Your task to perform on an android device: Add "macbook air" to the cart on target Image 0: 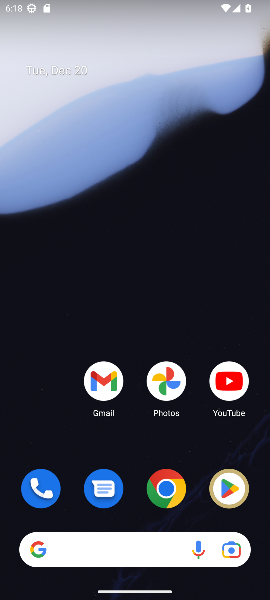
Step 0: press home button
Your task to perform on an android device: Add "macbook air" to the cart on target Image 1: 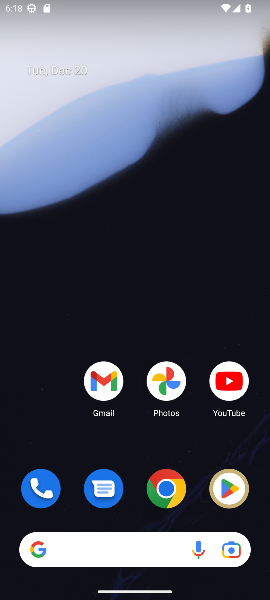
Step 1: drag from (50, 426) to (53, 24)
Your task to perform on an android device: Add "macbook air" to the cart on target Image 2: 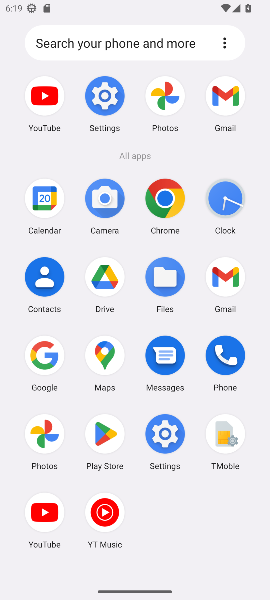
Step 2: click (39, 356)
Your task to perform on an android device: Add "macbook air" to the cart on target Image 3: 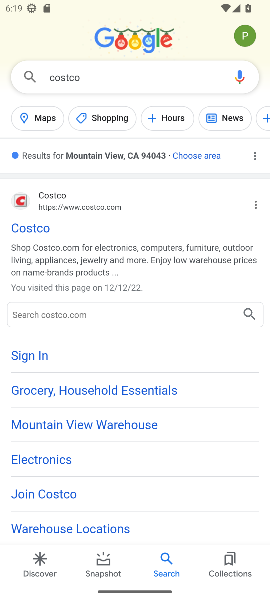
Step 3: click (23, 223)
Your task to perform on an android device: Add "macbook air" to the cart on target Image 4: 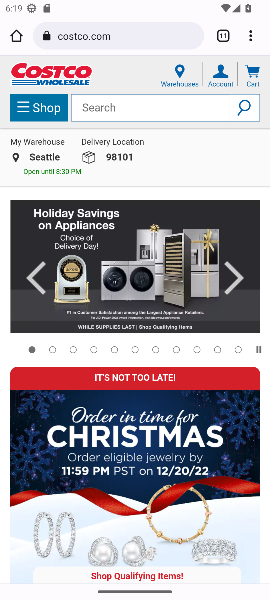
Step 4: click (96, 112)
Your task to perform on an android device: Add "macbook air" to the cart on target Image 5: 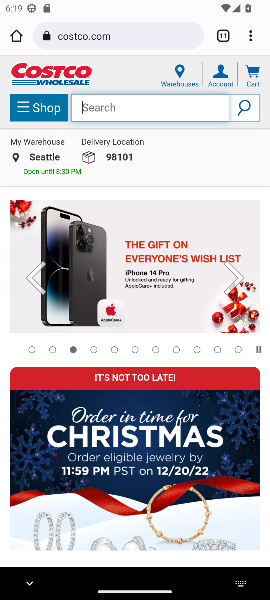
Step 5: type "macbook air"
Your task to perform on an android device: Add "macbook air" to the cart on target Image 6: 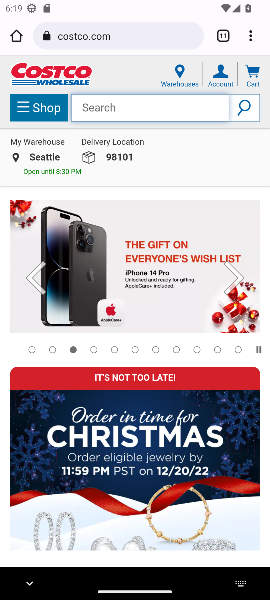
Step 6: press enter
Your task to perform on an android device: Add "macbook air" to the cart on target Image 7: 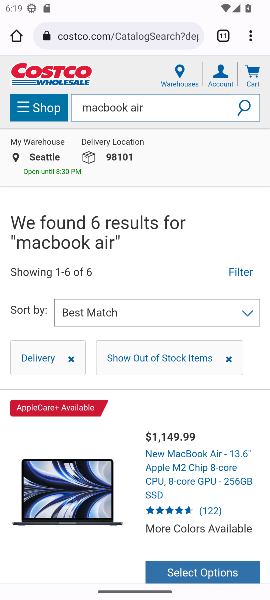
Step 7: drag from (183, 506) to (185, 236)
Your task to perform on an android device: Add "macbook air" to the cart on target Image 8: 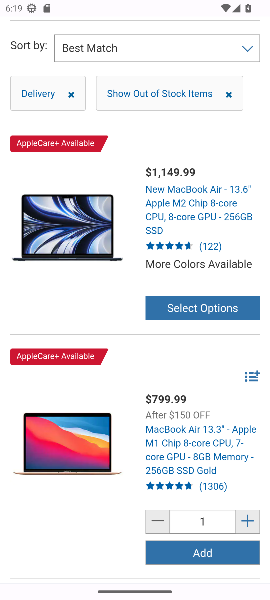
Step 8: click (176, 204)
Your task to perform on an android device: Add "macbook air" to the cart on target Image 9: 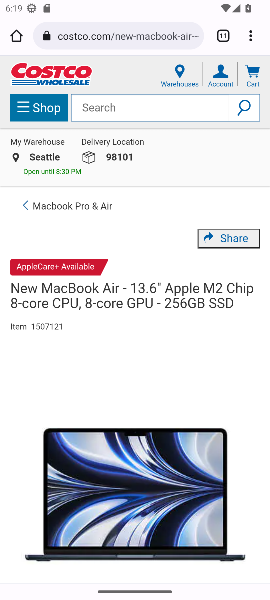
Step 9: drag from (140, 509) to (136, 216)
Your task to perform on an android device: Add "macbook air" to the cart on target Image 10: 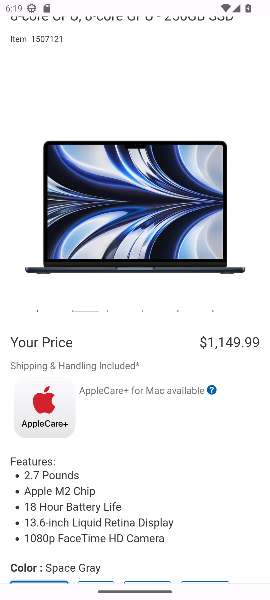
Step 10: drag from (125, 491) to (144, 158)
Your task to perform on an android device: Add "macbook air" to the cart on target Image 11: 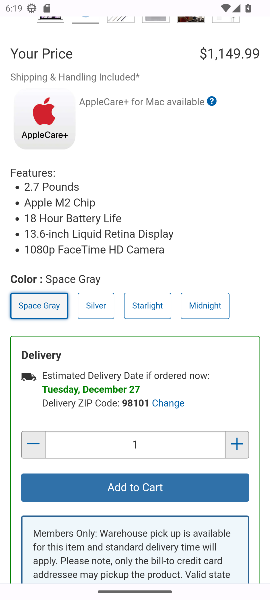
Step 11: click (136, 489)
Your task to perform on an android device: Add "macbook air" to the cart on target Image 12: 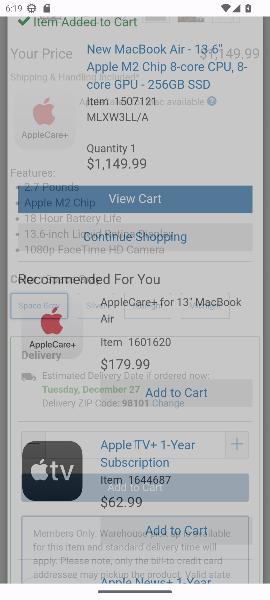
Step 12: task complete